Your task to perform on an android device: toggle airplane mode Image 0: 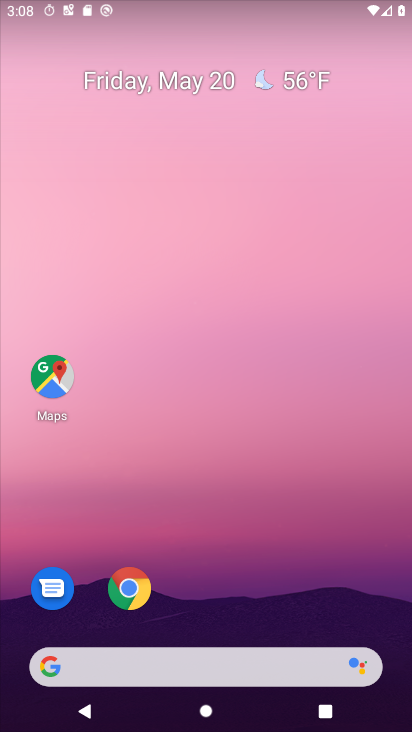
Step 0: press home button
Your task to perform on an android device: toggle airplane mode Image 1: 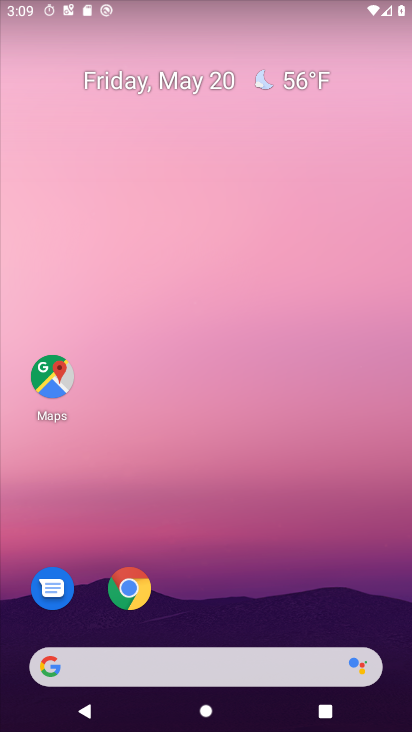
Step 1: drag from (296, 19) to (326, 546)
Your task to perform on an android device: toggle airplane mode Image 2: 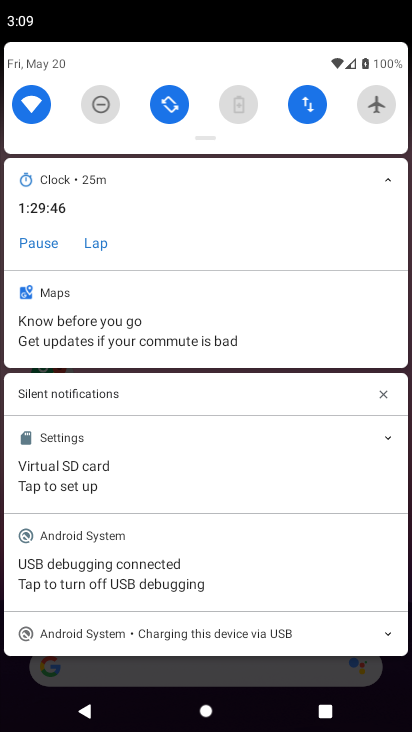
Step 2: click (379, 121)
Your task to perform on an android device: toggle airplane mode Image 3: 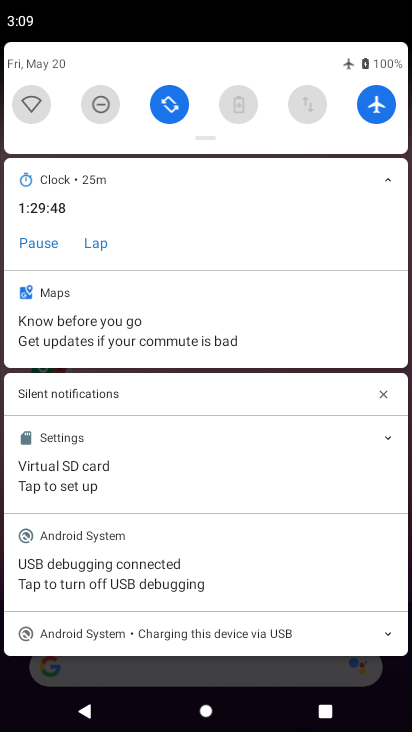
Step 3: task complete